Your task to perform on an android device: Open display settings Image 0: 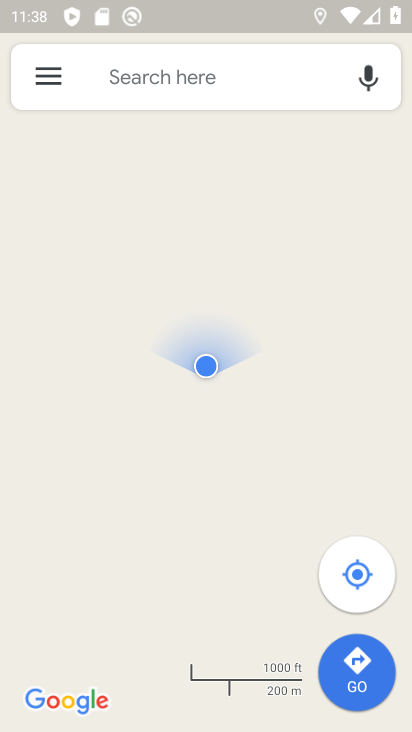
Step 0: press home button
Your task to perform on an android device: Open display settings Image 1: 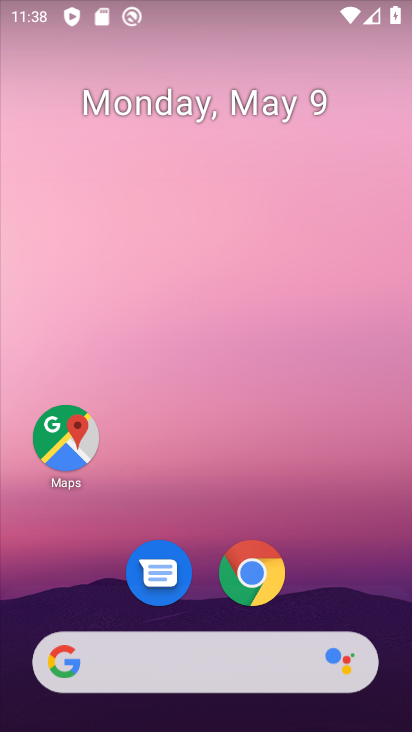
Step 1: drag from (211, 610) to (256, 252)
Your task to perform on an android device: Open display settings Image 2: 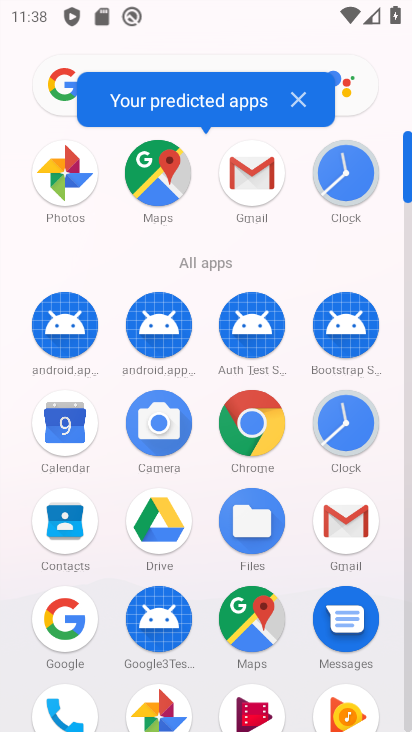
Step 2: drag from (211, 672) to (214, 129)
Your task to perform on an android device: Open display settings Image 3: 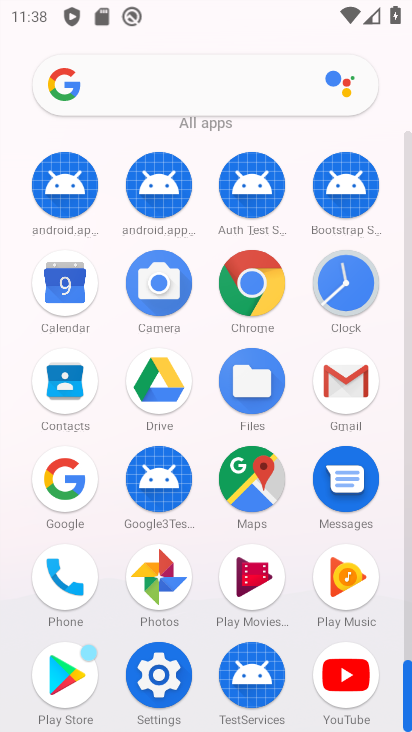
Step 3: click (179, 673)
Your task to perform on an android device: Open display settings Image 4: 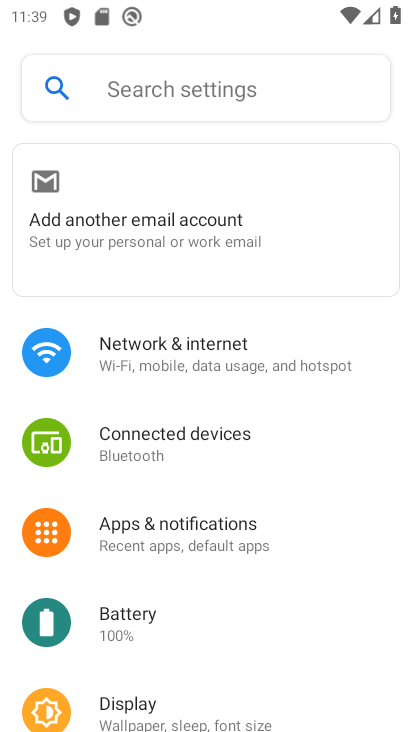
Step 4: drag from (198, 619) to (288, 127)
Your task to perform on an android device: Open display settings Image 5: 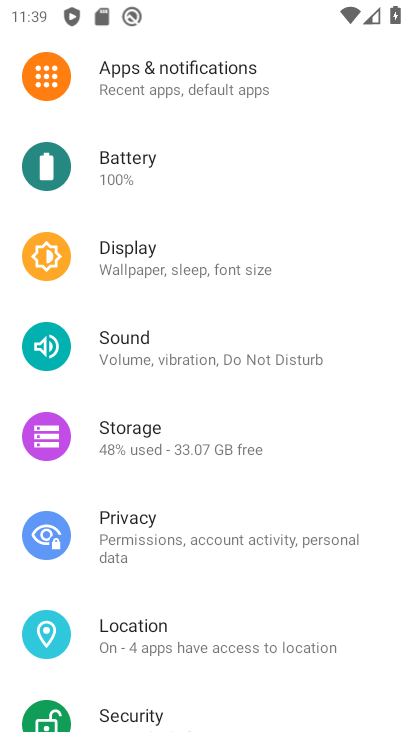
Step 5: click (186, 263)
Your task to perform on an android device: Open display settings Image 6: 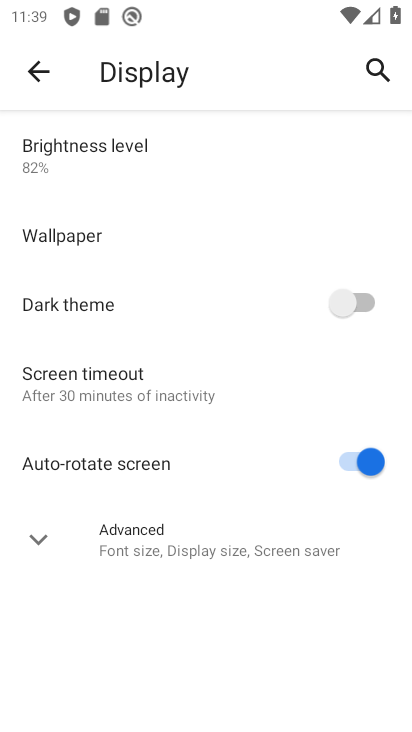
Step 6: task complete